Your task to perform on an android device: check data usage Image 0: 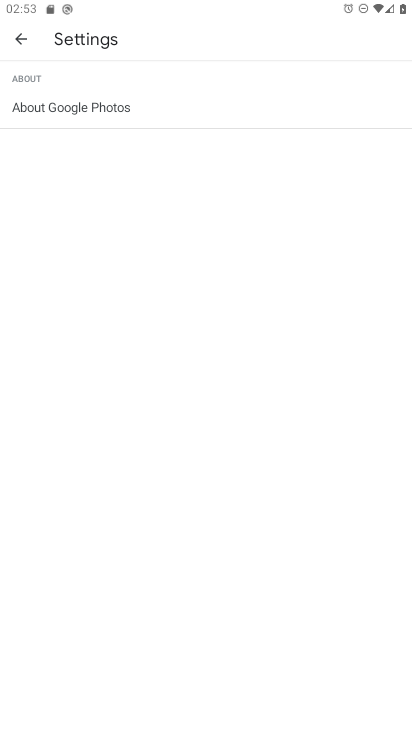
Step 0: press home button
Your task to perform on an android device: check data usage Image 1: 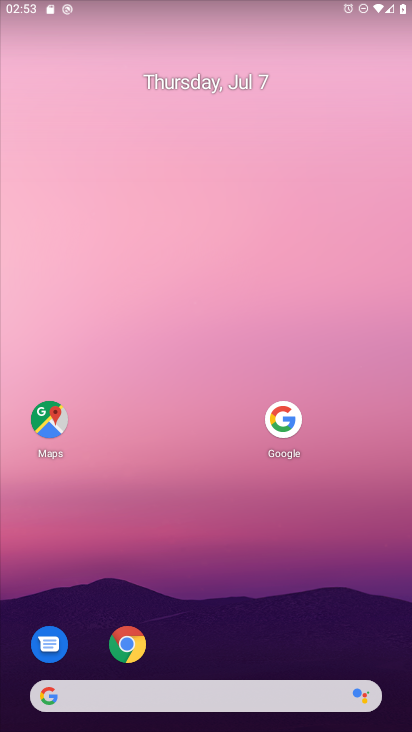
Step 1: drag from (180, 687) to (360, 5)
Your task to perform on an android device: check data usage Image 2: 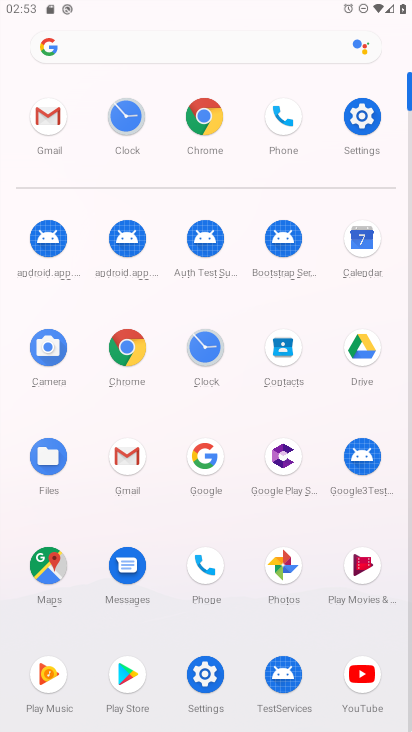
Step 2: click (361, 124)
Your task to perform on an android device: check data usage Image 3: 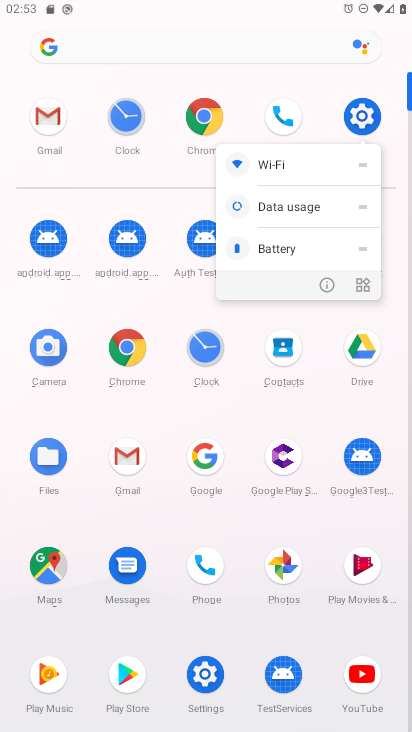
Step 3: click (366, 112)
Your task to perform on an android device: check data usage Image 4: 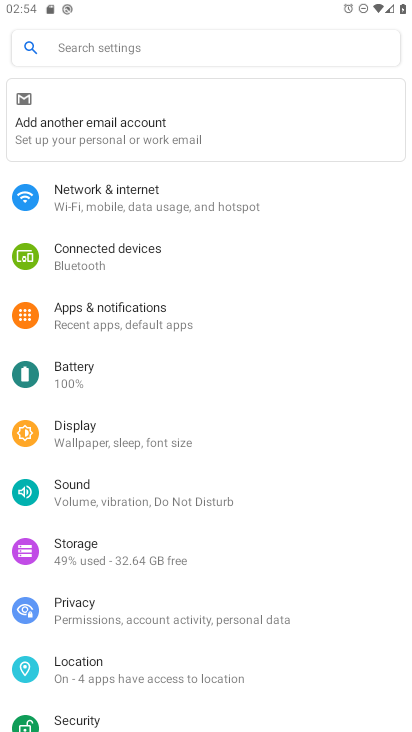
Step 4: click (114, 194)
Your task to perform on an android device: check data usage Image 5: 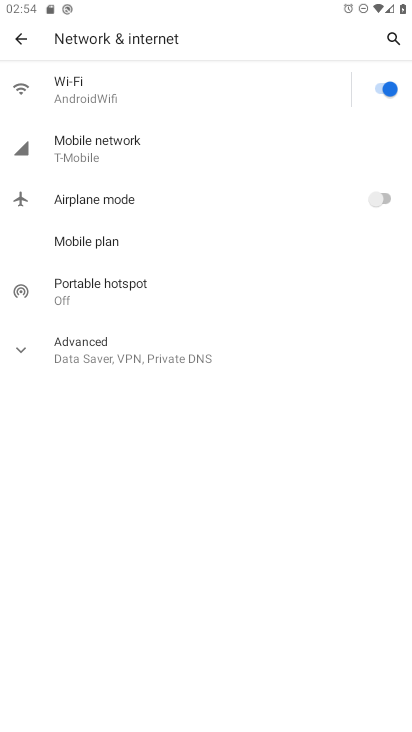
Step 5: click (110, 88)
Your task to perform on an android device: check data usage Image 6: 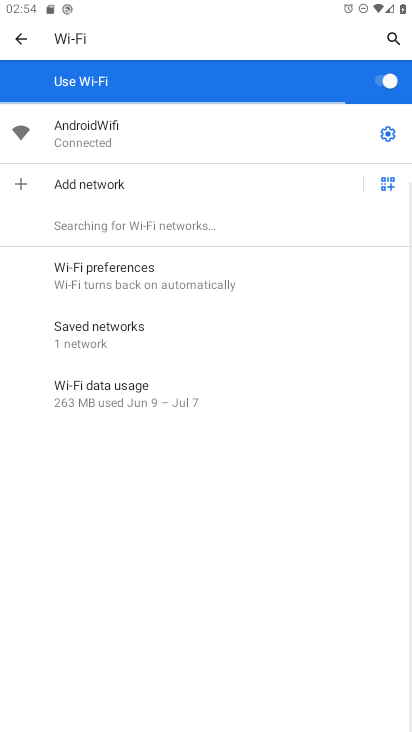
Step 6: click (131, 397)
Your task to perform on an android device: check data usage Image 7: 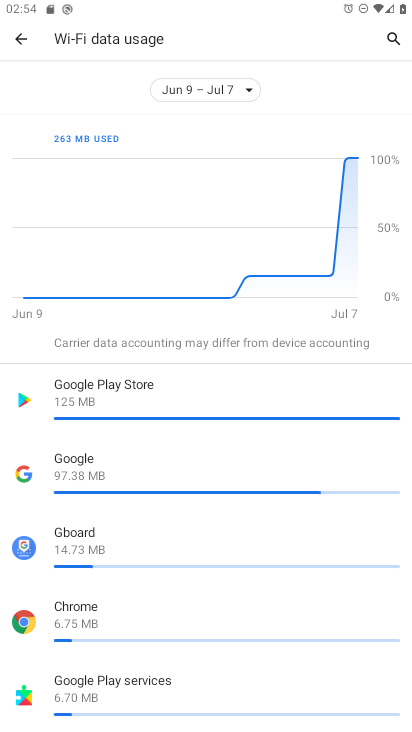
Step 7: task complete